Your task to perform on an android device: Go to Amazon Image 0: 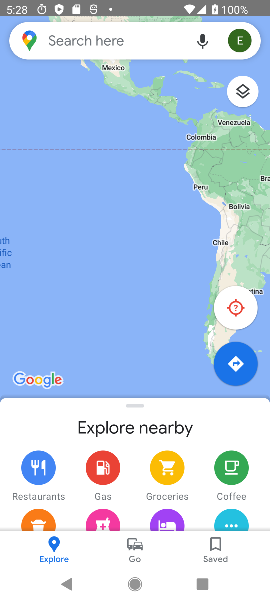
Step 0: press back button
Your task to perform on an android device: Go to Amazon Image 1: 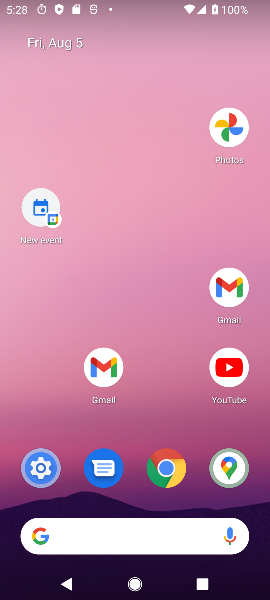
Step 1: drag from (139, 508) to (112, 233)
Your task to perform on an android device: Go to Amazon Image 2: 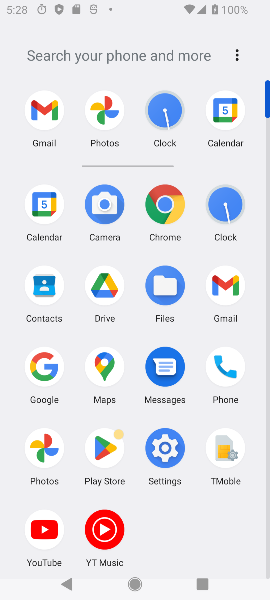
Step 2: click (138, 234)
Your task to perform on an android device: Go to Amazon Image 3: 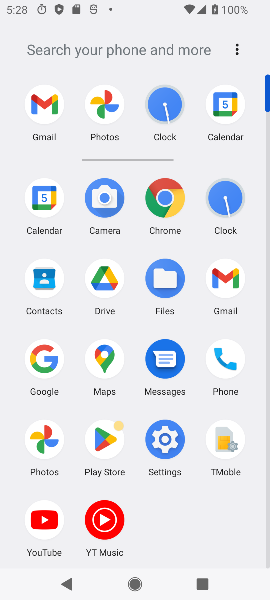
Step 3: click (158, 435)
Your task to perform on an android device: Go to Amazon Image 4: 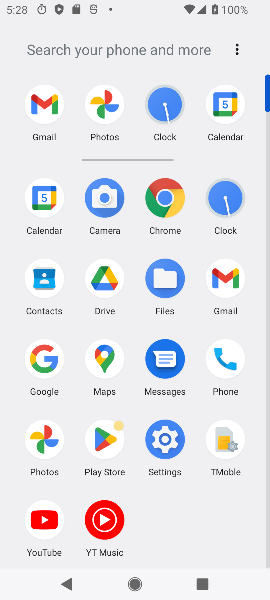
Step 4: click (158, 435)
Your task to perform on an android device: Go to Amazon Image 5: 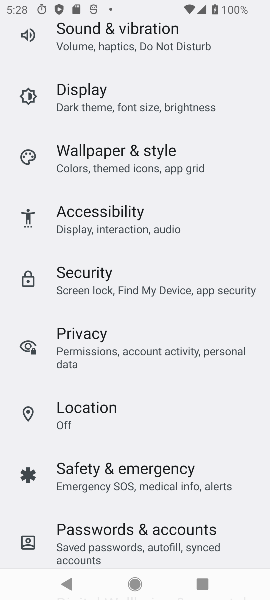
Step 5: press back button
Your task to perform on an android device: Go to Amazon Image 6: 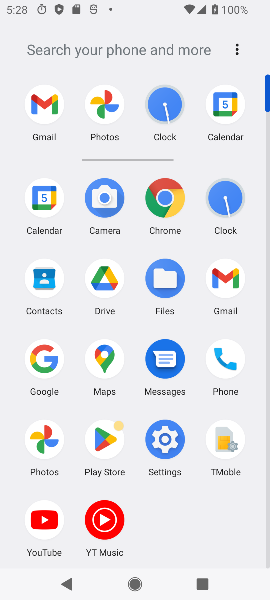
Step 6: click (164, 214)
Your task to perform on an android device: Go to Amazon Image 7: 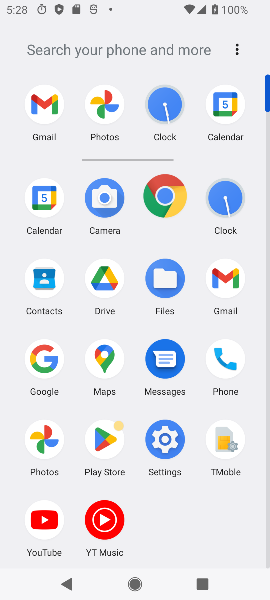
Step 7: click (164, 211)
Your task to perform on an android device: Go to Amazon Image 8: 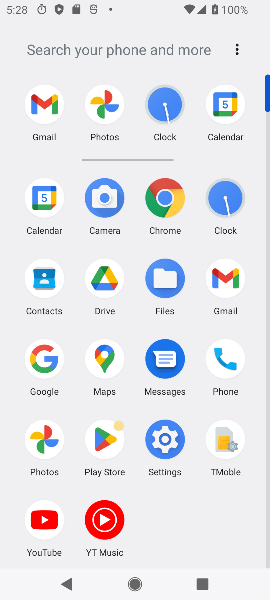
Step 8: click (164, 203)
Your task to perform on an android device: Go to Amazon Image 9: 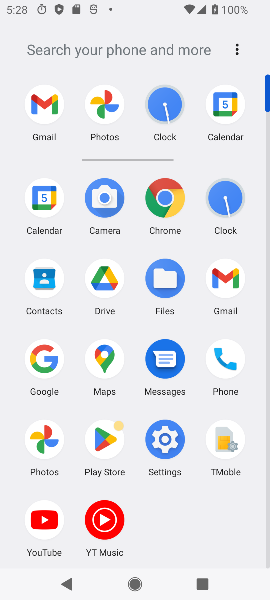
Step 9: click (164, 203)
Your task to perform on an android device: Go to Amazon Image 10: 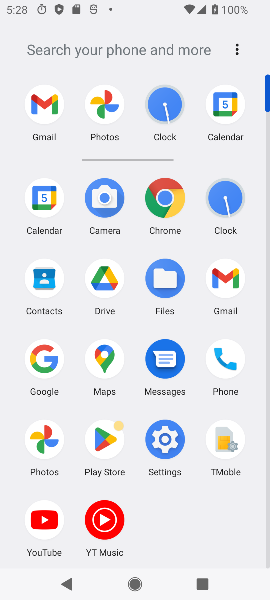
Step 10: click (164, 203)
Your task to perform on an android device: Go to Amazon Image 11: 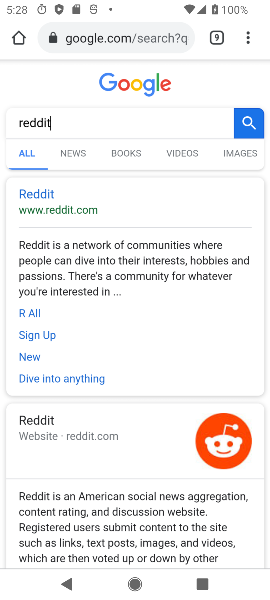
Step 11: click (164, 203)
Your task to perform on an android device: Go to Amazon Image 12: 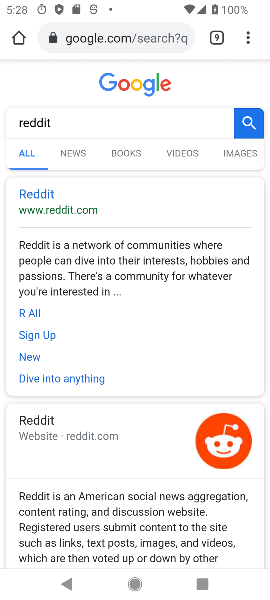
Step 12: drag from (249, 37) to (119, 127)
Your task to perform on an android device: Go to Amazon Image 13: 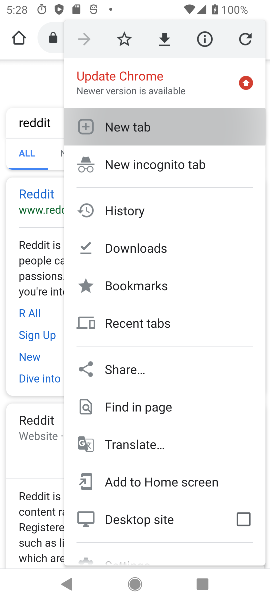
Step 13: click (119, 127)
Your task to perform on an android device: Go to Amazon Image 14: 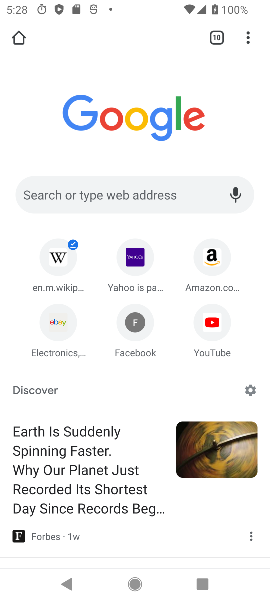
Step 14: click (206, 259)
Your task to perform on an android device: Go to Amazon Image 15: 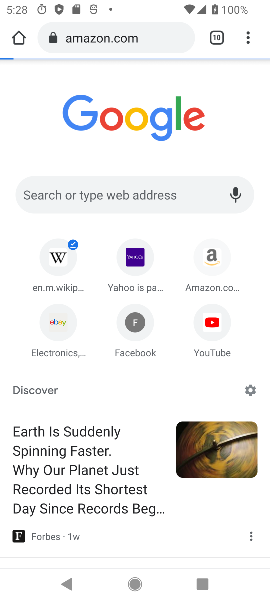
Step 15: click (206, 259)
Your task to perform on an android device: Go to Amazon Image 16: 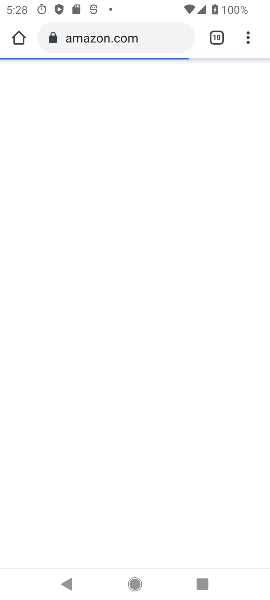
Step 16: click (206, 259)
Your task to perform on an android device: Go to Amazon Image 17: 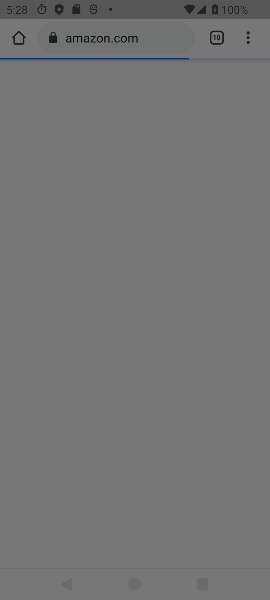
Step 17: click (207, 258)
Your task to perform on an android device: Go to Amazon Image 18: 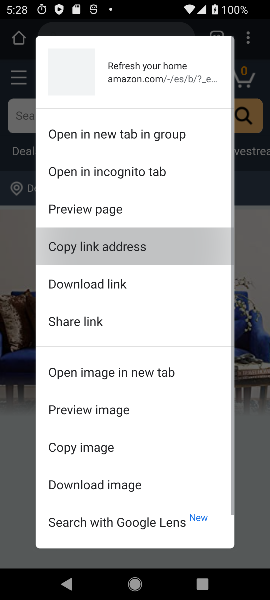
Step 18: task complete